Your task to perform on an android device: Find coffee shops on Maps Image 0: 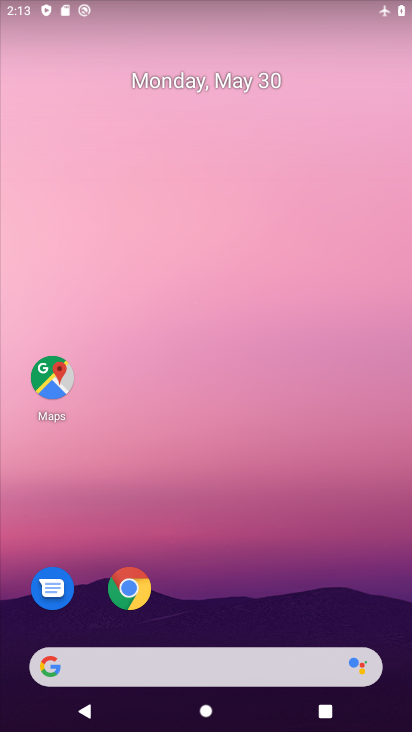
Step 0: click (275, 616)
Your task to perform on an android device: Find coffee shops on Maps Image 1: 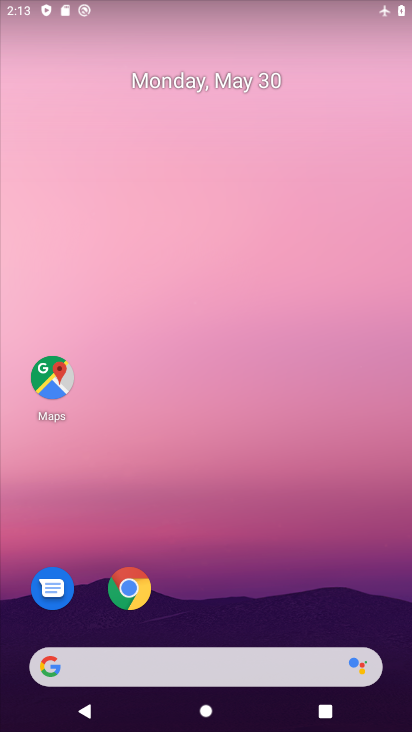
Step 1: drag from (193, 619) to (177, 242)
Your task to perform on an android device: Find coffee shops on Maps Image 2: 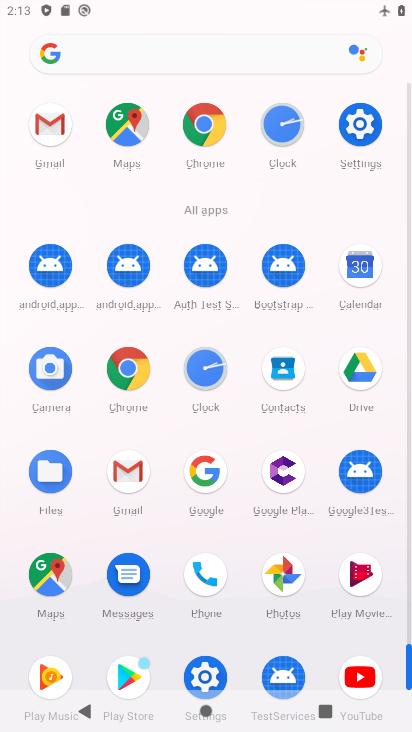
Step 2: click (36, 566)
Your task to perform on an android device: Find coffee shops on Maps Image 3: 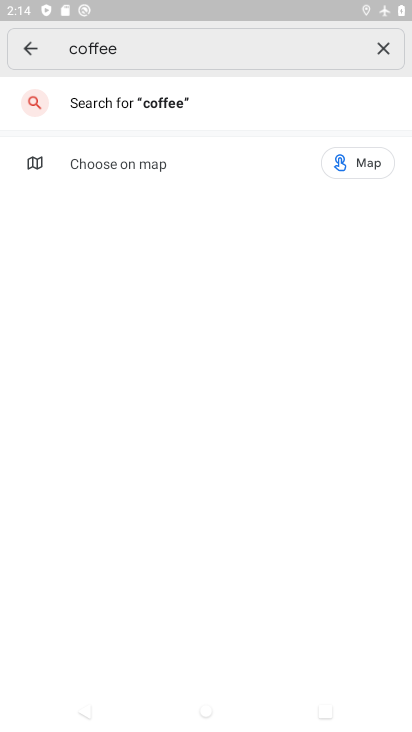
Step 3: task complete